Your task to perform on an android device: turn vacation reply on in the gmail app Image 0: 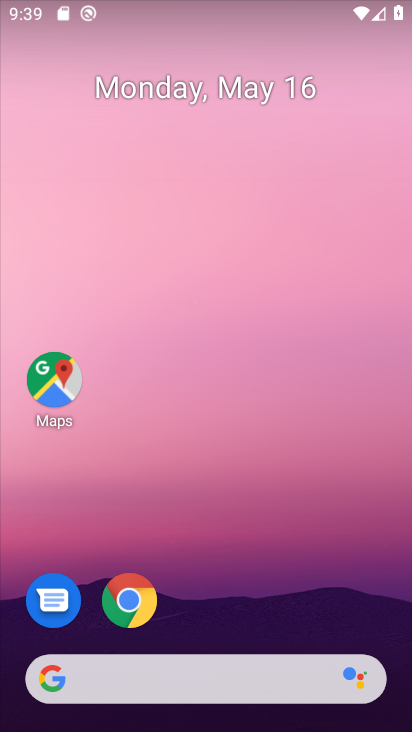
Step 0: drag from (334, 579) to (302, 131)
Your task to perform on an android device: turn vacation reply on in the gmail app Image 1: 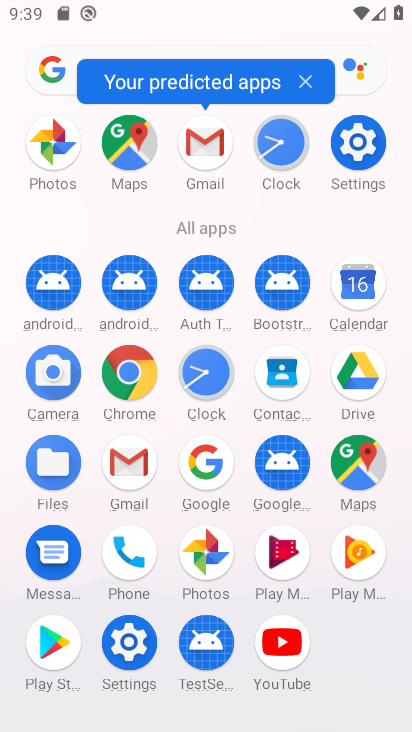
Step 1: click (121, 479)
Your task to perform on an android device: turn vacation reply on in the gmail app Image 2: 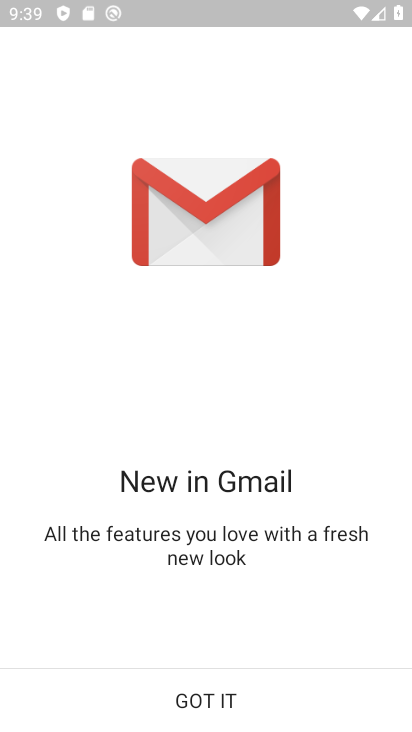
Step 2: click (184, 696)
Your task to perform on an android device: turn vacation reply on in the gmail app Image 3: 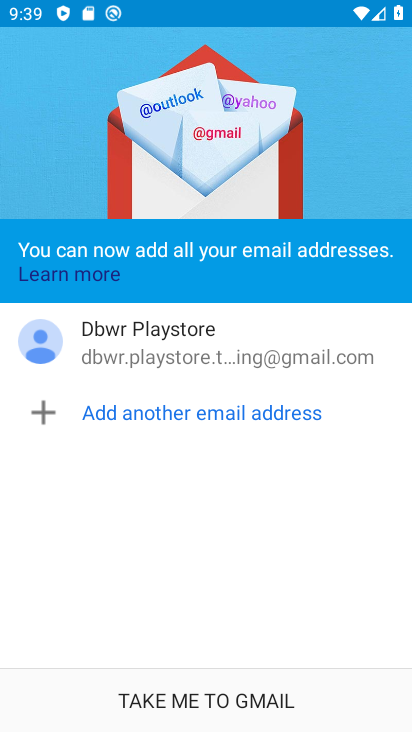
Step 3: click (181, 687)
Your task to perform on an android device: turn vacation reply on in the gmail app Image 4: 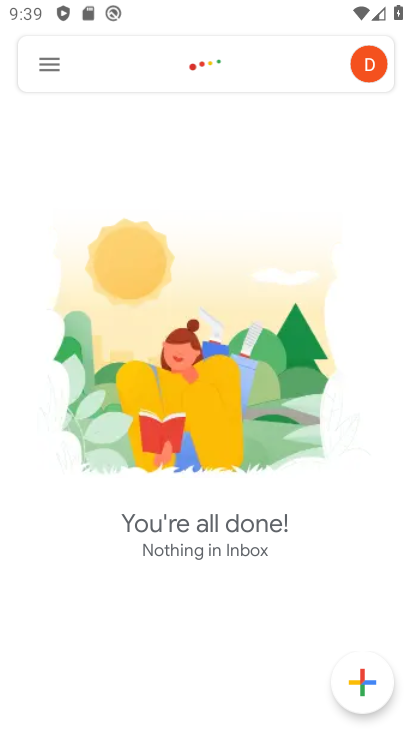
Step 4: click (42, 64)
Your task to perform on an android device: turn vacation reply on in the gmail app Image 5: 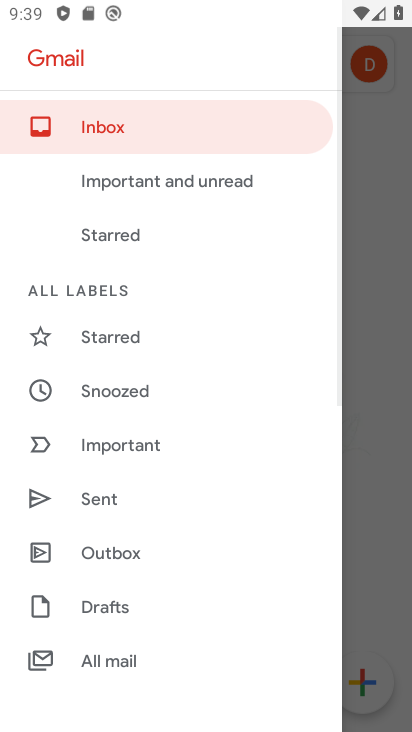
Step 5: drag from (189, 623) to (137, 174)
Your task to perform on an android device: turn vacation reply on in the gmail app Image 6: 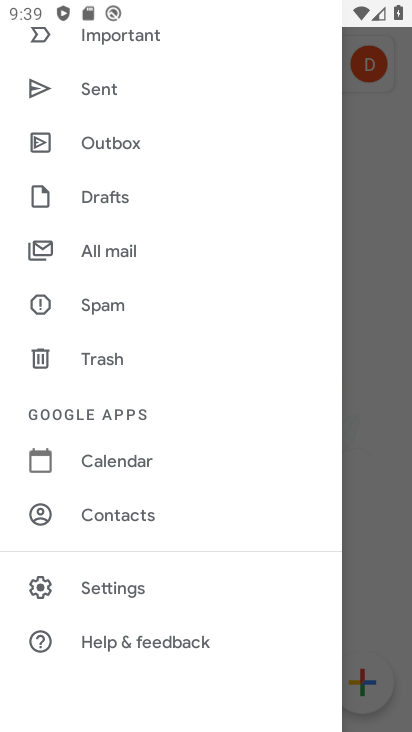
Step 6: click (82, 594)
Your task to perform on an android device: turn vacation reply on in the gmail app Image 7: 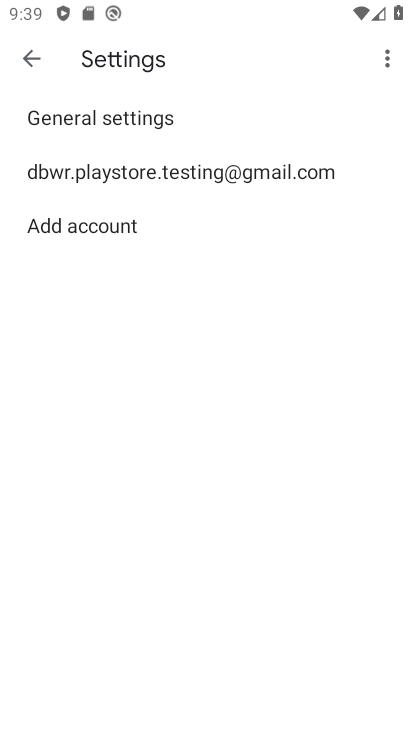
Step 7: click (116, 178)
Your task to perform on an android device: turn vacation reply on in the gmail app Image 8: 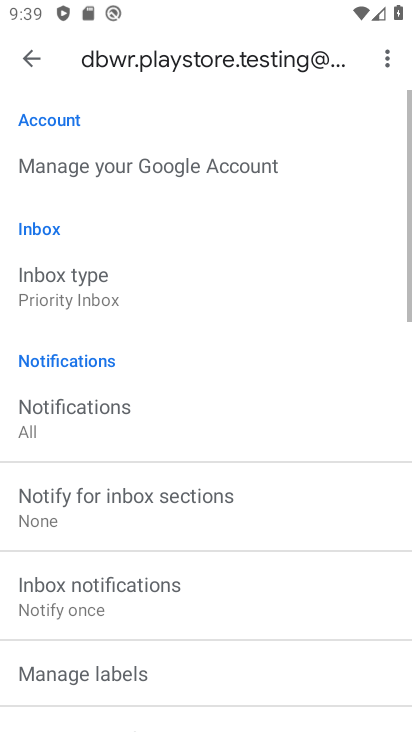
Step 8: drag from (229, 502) to (213, 208)
Your task to perform on an android device: turn vacation reply on in the gmail app Image 9: 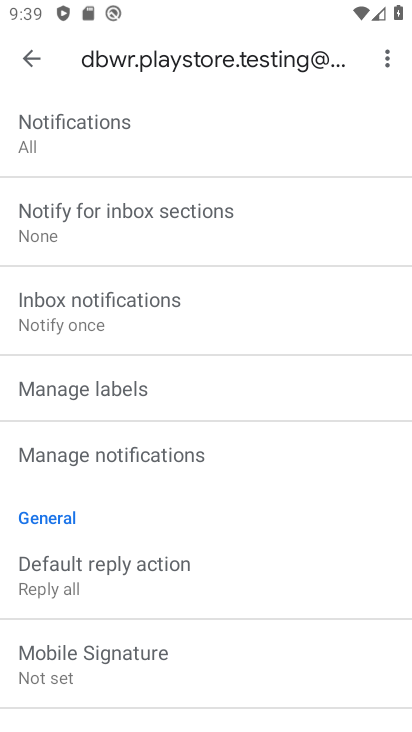
Step 9: drag from (227, 583) to (245, 244)
Your task to perform on an android device: turn vacation reply on in the gmail app Image 10: 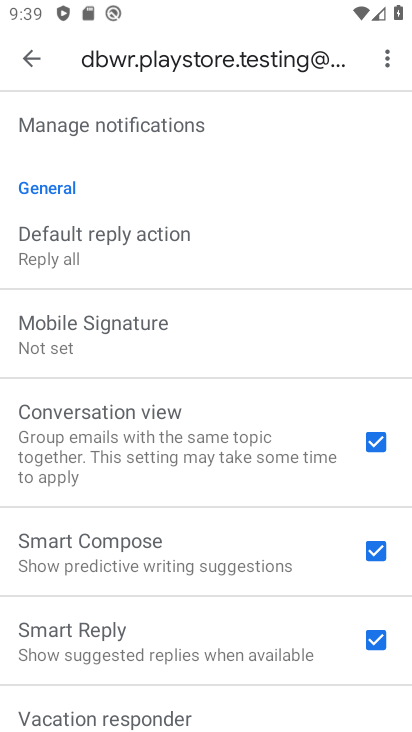
Step 10: drag from (224, 666) to (203, 280)
Your task to perform on an android device: turn vacation reply on in the gmail app Image 11: 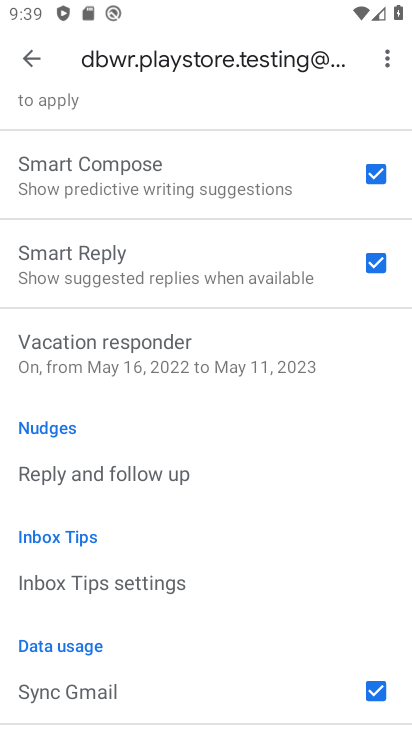
Step 11: click (166, 364)
Your task to perform on an android device: turn vacation reply on in the gmail app Image 12: 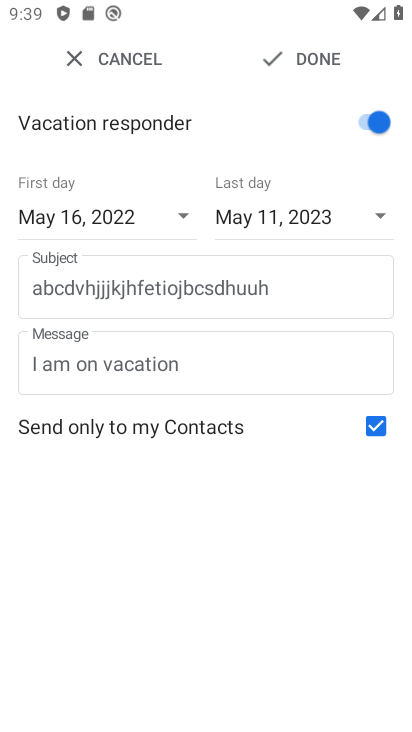
Step 12: task complete